Your task to perform on an android device: Open wifi settings Image 0: 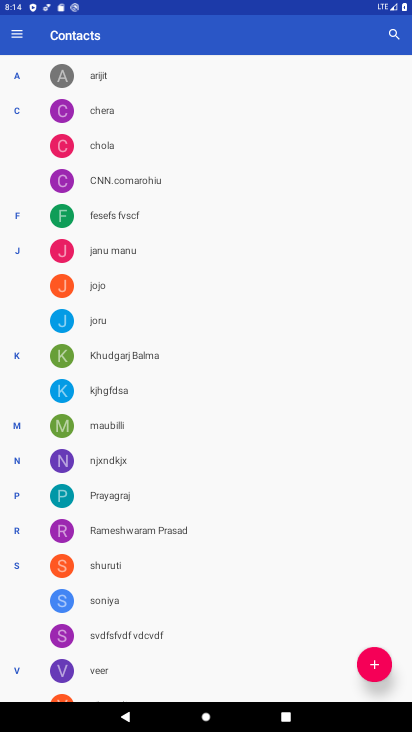
Step 0: press home button
Your task to perform on an android device: Open wifi settings Image 1: 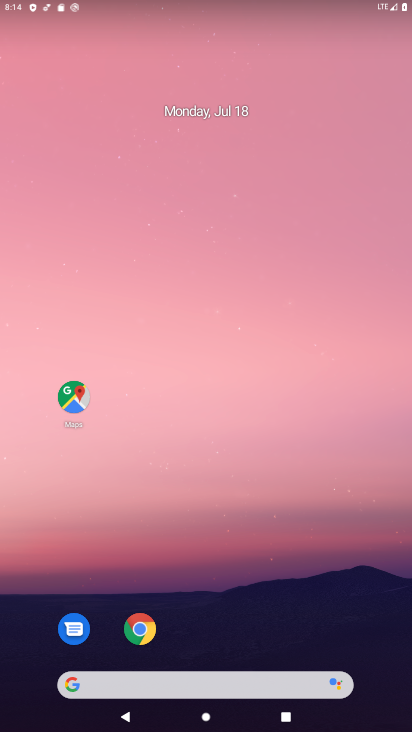
Step 1: drag from (222, 678) to (240, 0)
Your task to perform on an android device: Open wifi settings Image 2: 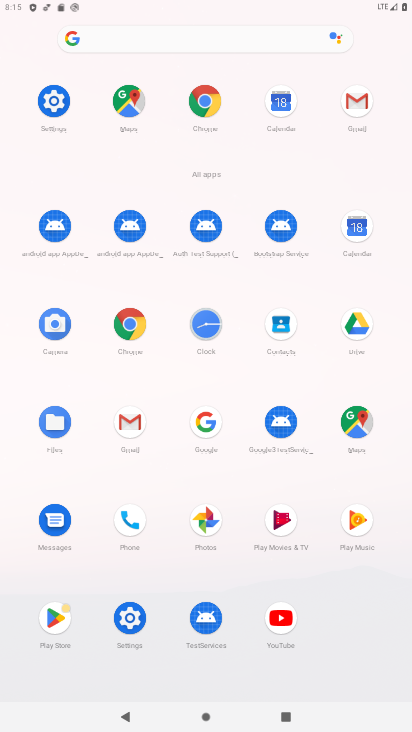
Step 2: click (123, 626)
Your task to perform on an android device: Open wifi settings Image 3: 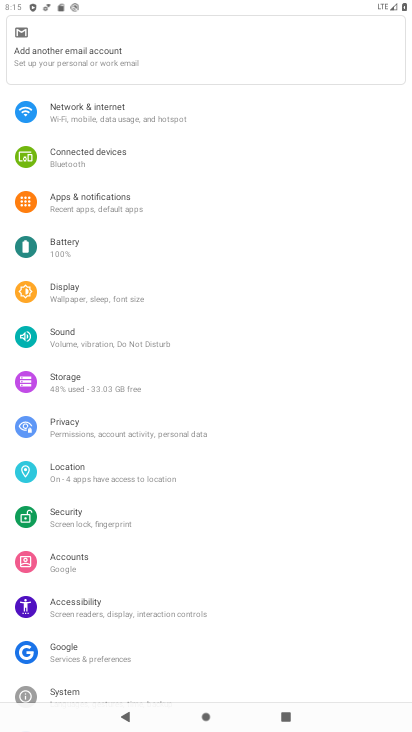
Step 3: click (126, 121)
Your task to perform on an android device: Open wifi settings Image 4: 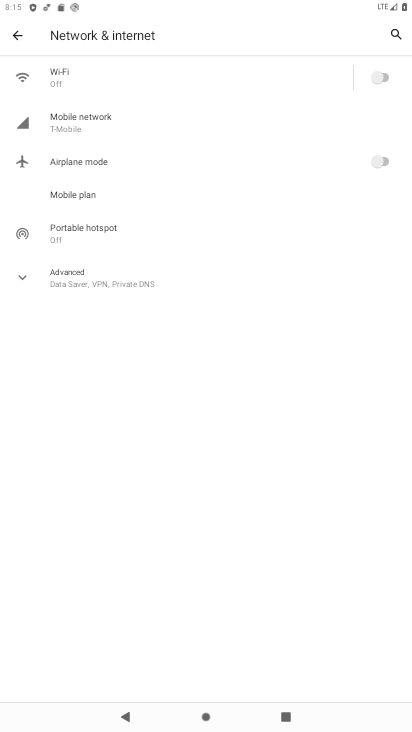
Step 4: click (81, 75)
Your task to perform on an android device: Open wifi settings Image 5: 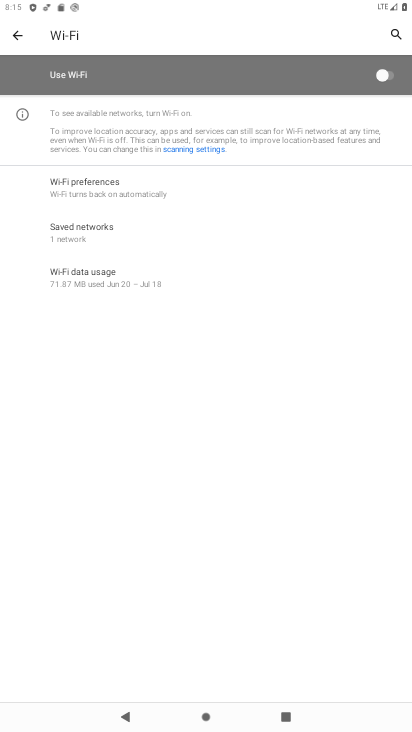
Step 5: task complete